Your task to perform on an android device: check data usage Image 0: 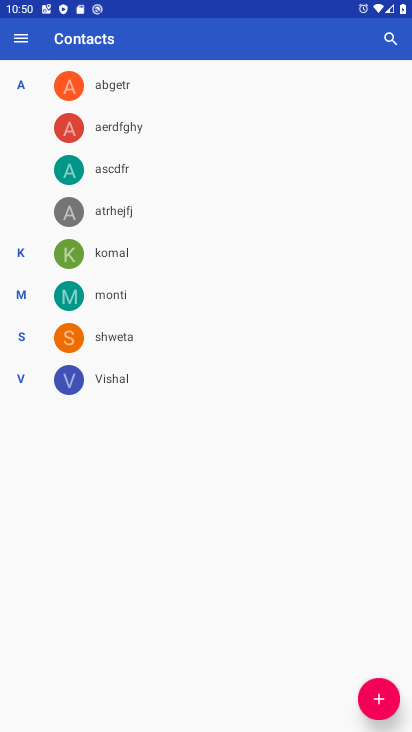
Step 0: drag from (222, 654) to (215, 101)
Your task to perform on an android device: check data usage Image 1: 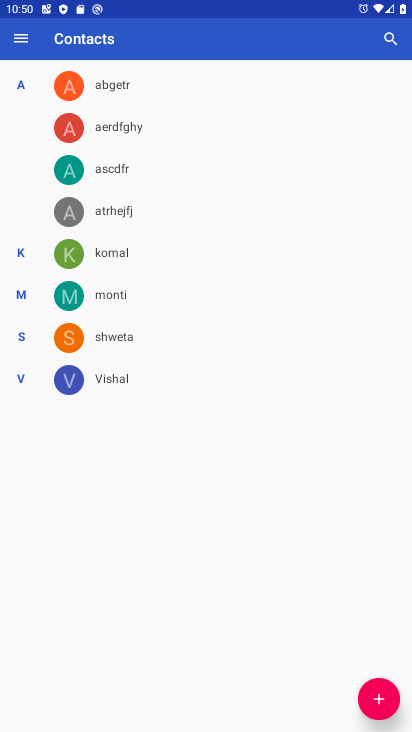
Step 1: press home button
Your task to perform on an android device: check data usage Image 2: 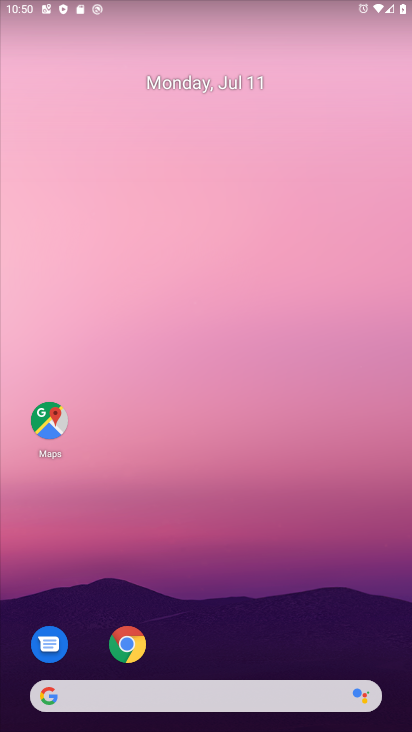
Step 2: drag from (201, 661) to (197, 92)
Your task to perform on an android device: check data usage Image 3: 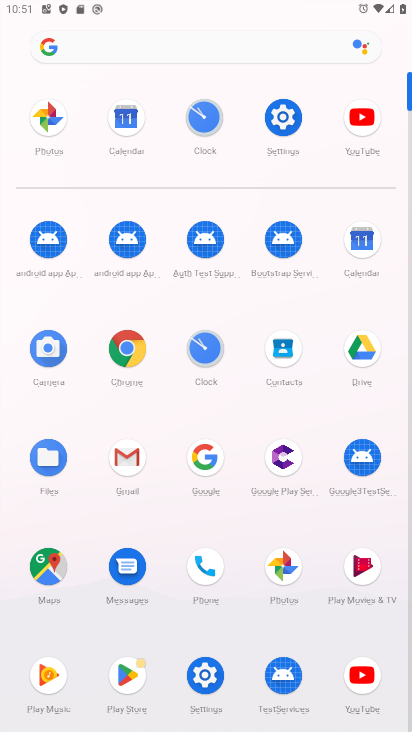
Step 3: click (279, 113)
Your task to perform on an android device: check data usage Image 4: 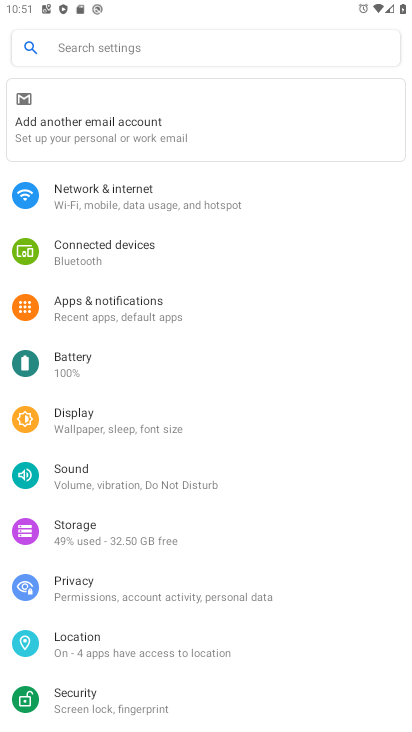
Step 4: click (166, 189)
Your task to perform on an android device: check data usage Image 5: 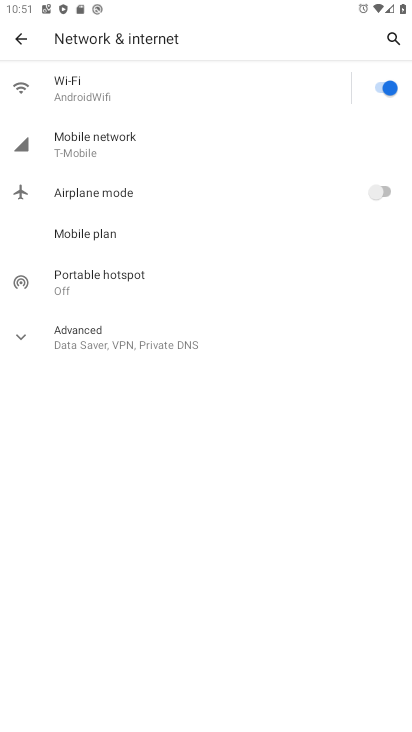
Step 5: click (123, 146)
Your task to perform on an android device: check data usage Image 6: 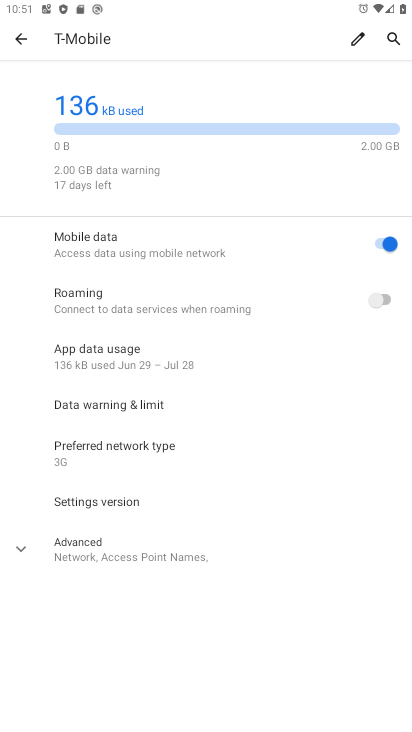
Step 6: click (153, 352)
Your task to perform on an android device: check data usage Image 7: 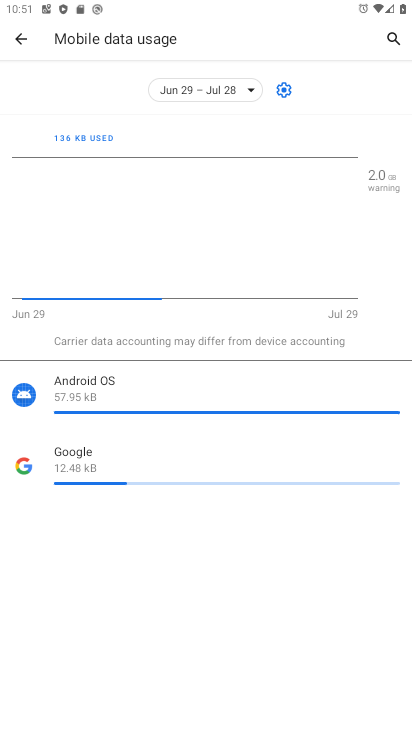
Step 7: task complete